Your task to perform on an android device: Search for pizza restaurants on Maps Image 0: 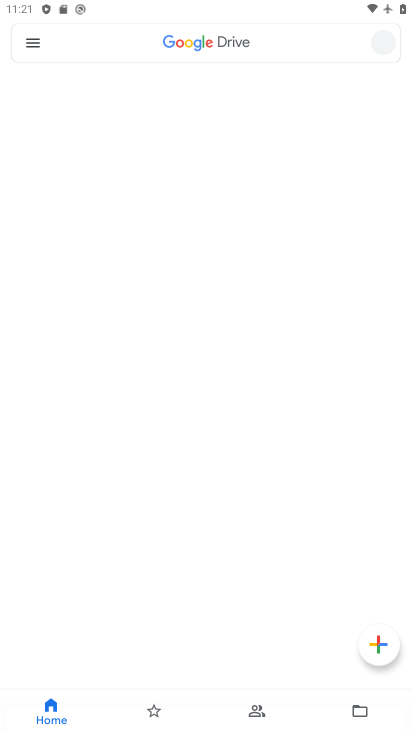
Step 0: drag from (28, 686) to (328, 162)
Your task to perform on an android device: Search for pizza restaurants on Maps Image 1: 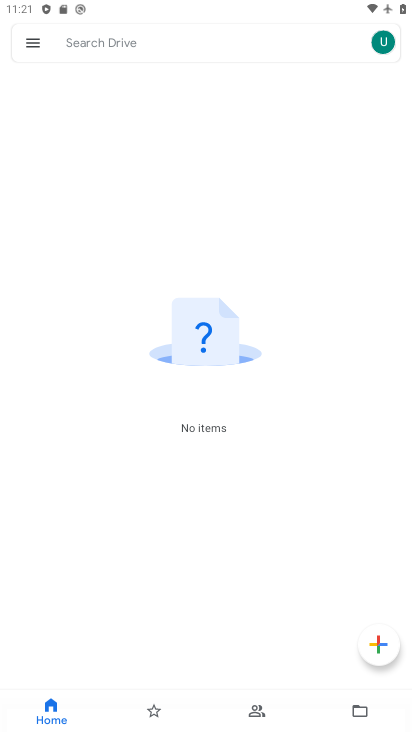
Step 1: press home button
Your task to perform on an android device: Search for pizza restaurants on Maps Image 2: 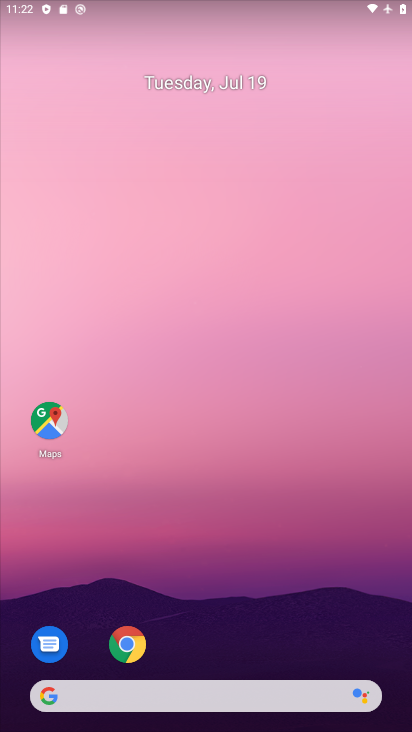
Step 2: click (43, 411)
Your task to perform on an android device: Search for pizza restaurants on Maps Image 3: 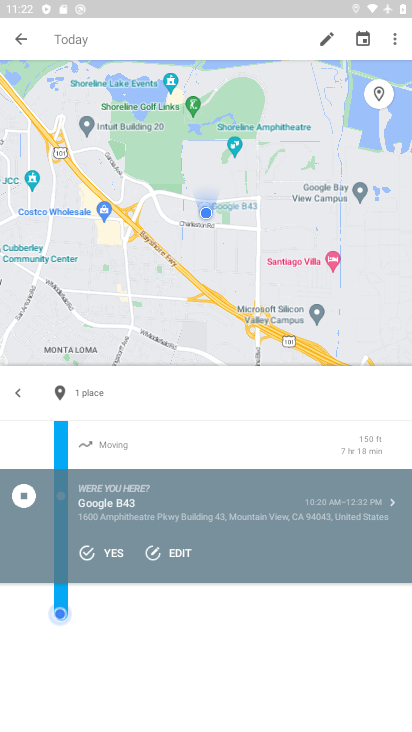
Step 3: click (26, 42)
Your task to perform on an android device: Search for pizza restaurants on Maps Image 4: 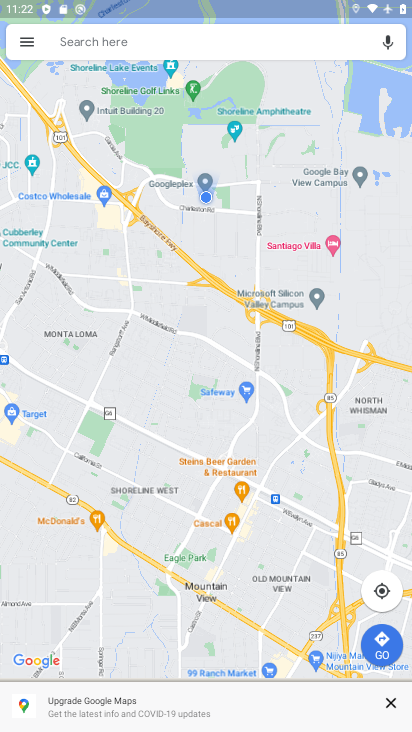
Step 4: click (68, 42)
Your task to perform on an android device: Search for pizza restaurants on Maps Image 5: 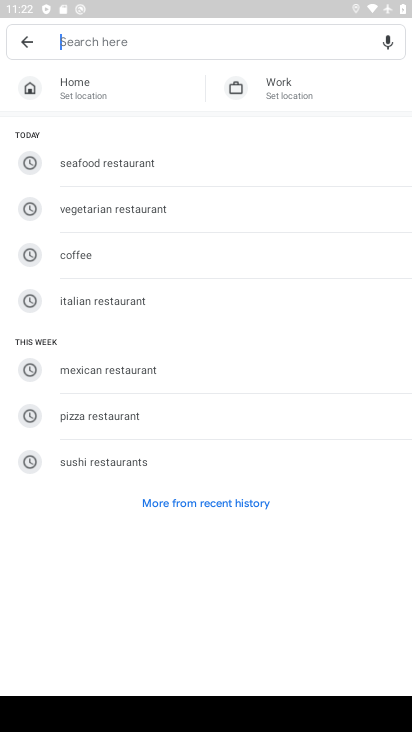
Step 5: click (84, 412)
Your task to perform on an android device: Search for pizza restaurants on Maps Image 6: 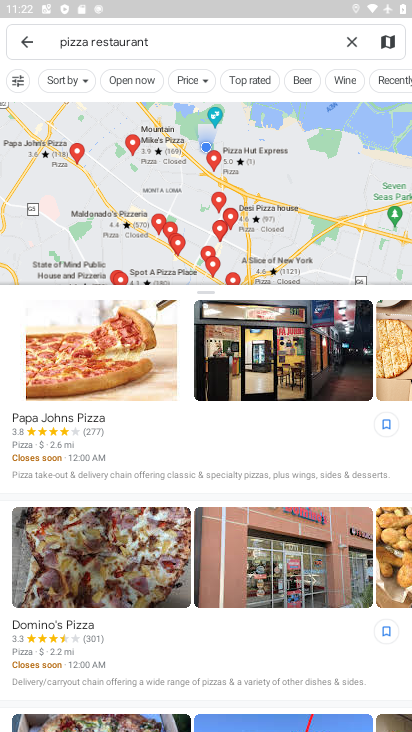
Step 6: task complete